Your task to perform on an android device: Show me popular games on the Play Store Image 0: 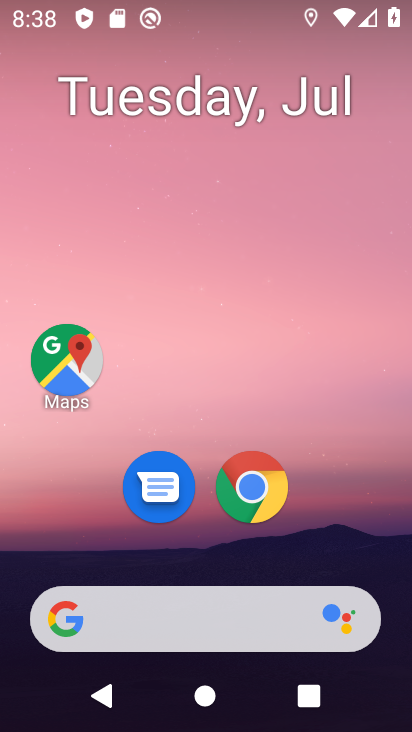
Step 0: drag from (228, 592) to (289, 12)
Your task to perform on an android device: Show me popular games on the Play Store Image 1: 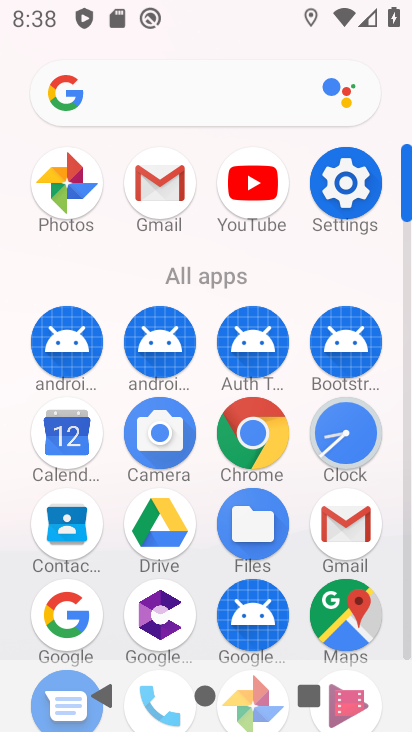
Step 1: drag from (165, 609) to (279, 182)
Your task to perform on an android device: Show me popular games on the Play Store Image 2: 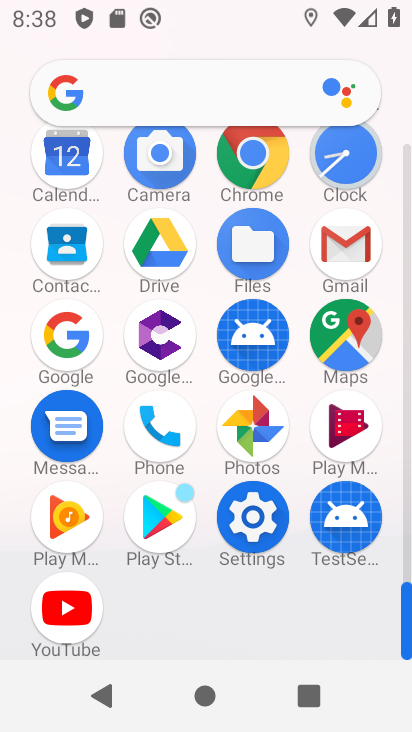
Step 2: click (143, 514)
Your task to perform on an android device: Show me popular games on the Play Store Image 3: 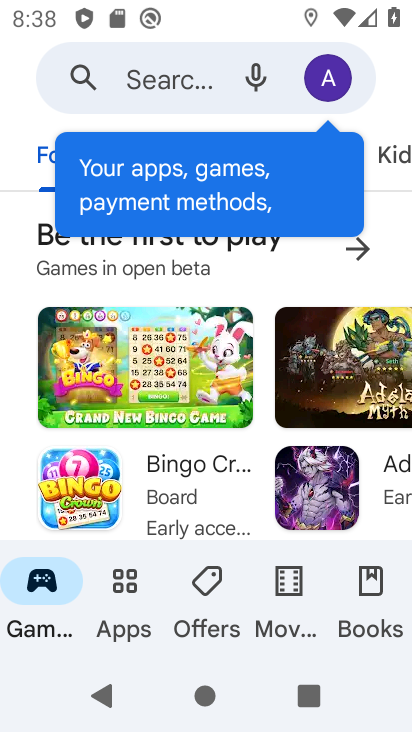
Step 3: task complete